Your task to perform on an android device: change text size in settings app Image 0: 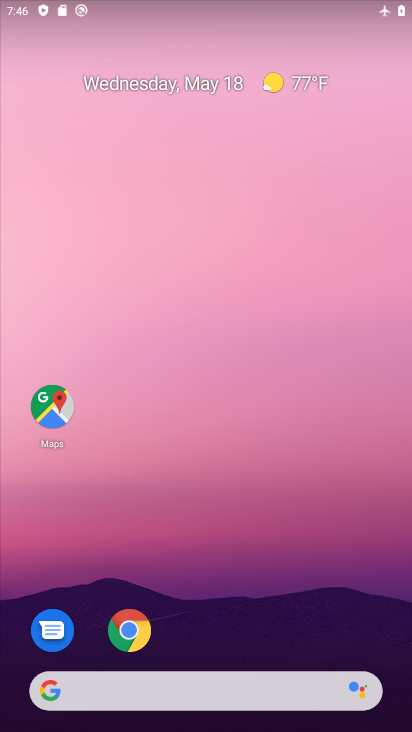
Step 0: drag from (276, 632) to (296, 229)
Your task to perform on an android device: change text size in settings app Image 1: 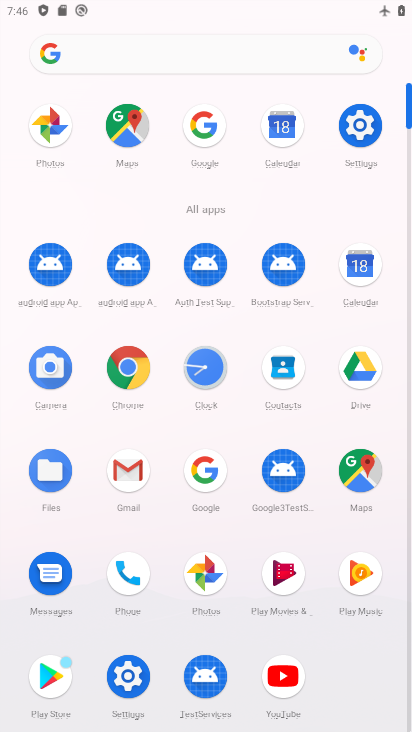
Step 1: click (363, 134)
Your task to perform on an android device: change text size in settings app Image 2: 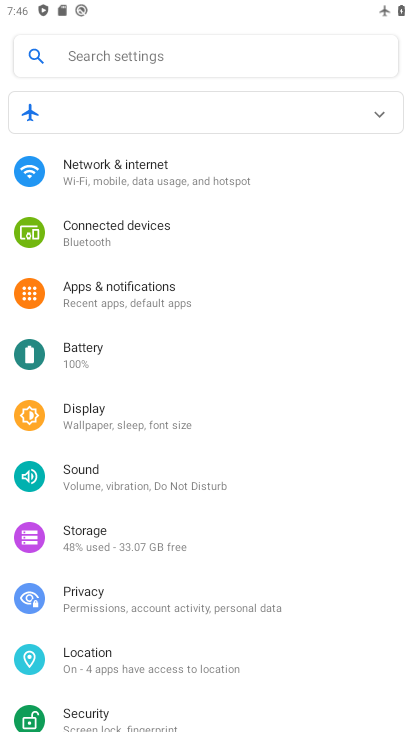
Step 2: click (82, 420)
Your task to perform on an android device: change text size in settings app Image 3: 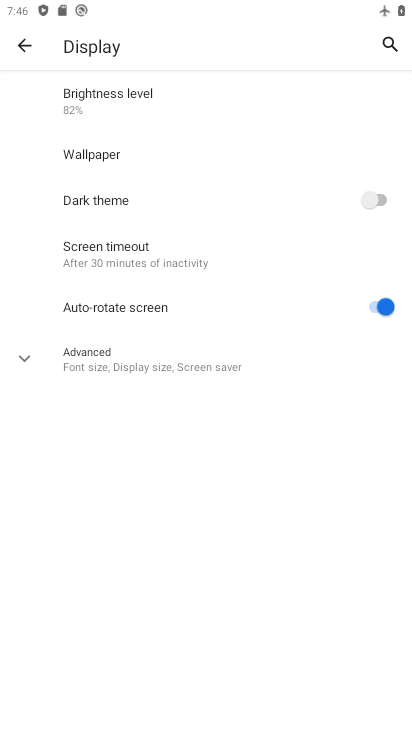
Step 3: click (28, 356)
Your task to perform on an android device: change text size in settings app Image 4: 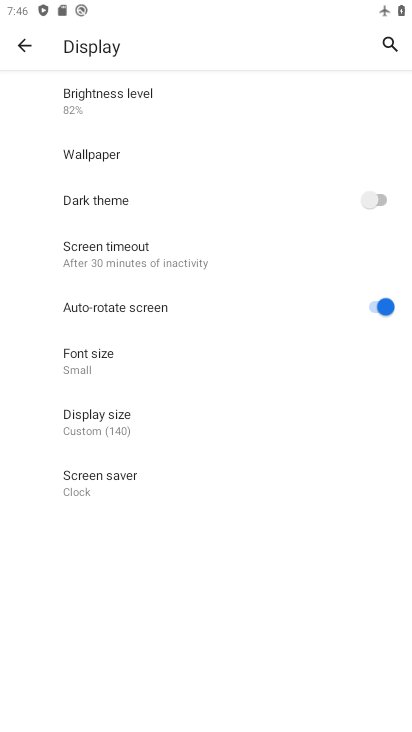
Step 4: click (145, 363)
Your task to perform on an android device: change text size in settings app Image 5: 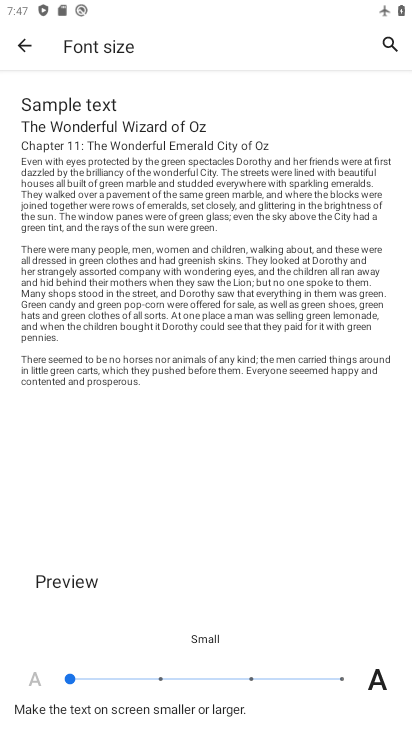
Step 5: click (166, 685)
Your task to perform on an android device: change text size in settings app Image 6: 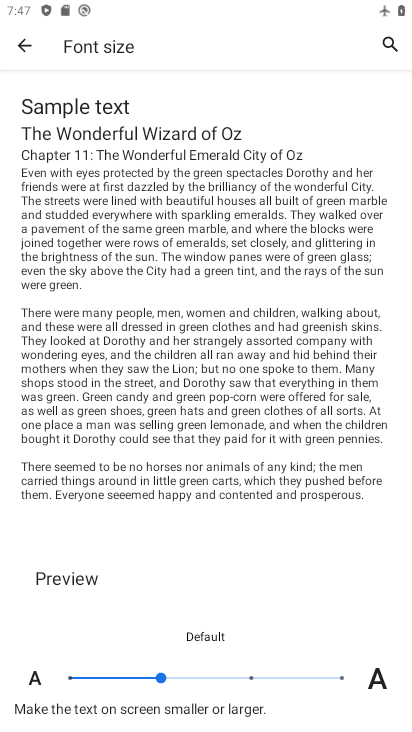
Step 6: task complete